Your task to perform on an android device: Search for Italian restaurants on Maps Image 0: 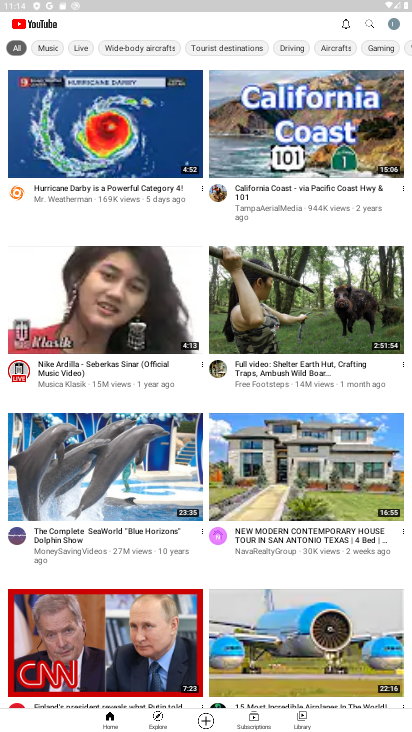
Step 0: press home button
Your task to perform on an android device: Search for Italian restaurants on Maps Image 1: 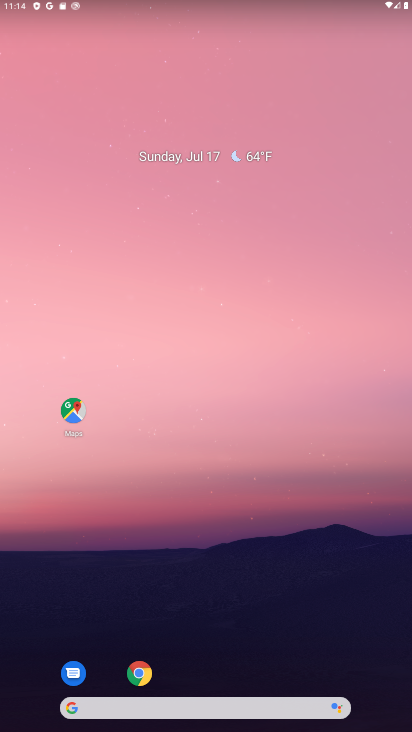
Step 1: drag from (212, 668) to (195, 95)
Your task to perform on an android device: Search for Italian restaurants on Maps Image 2: 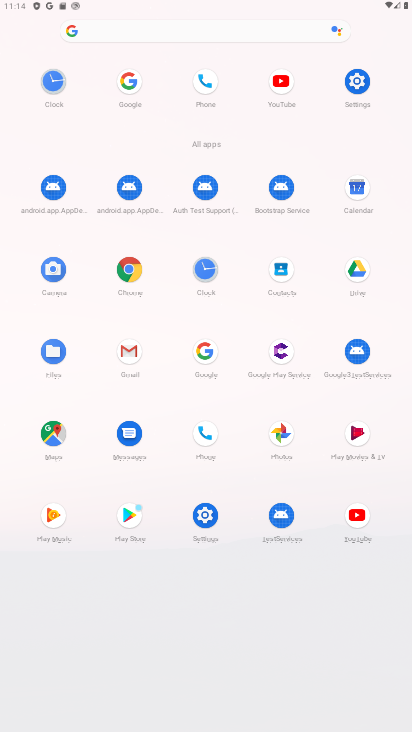
Step 2: click (52, 436)
Your task to perform on an android device: Search for Italian restaurants on Maps Image 3: 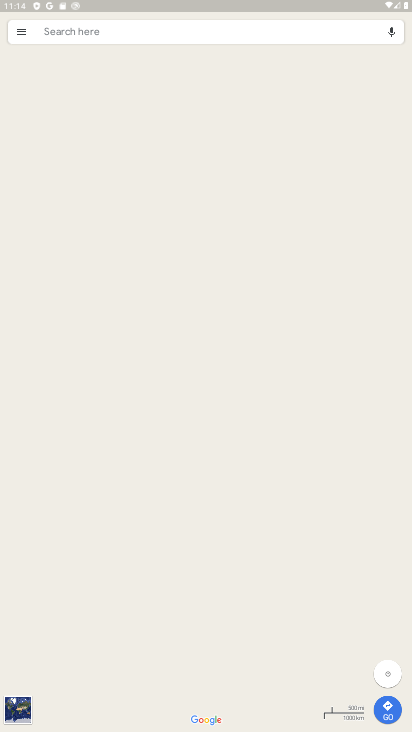
Step 3: click (184, 34)
Your task to perform on an android device: Search for Italian restaurants on Maps Image 4: 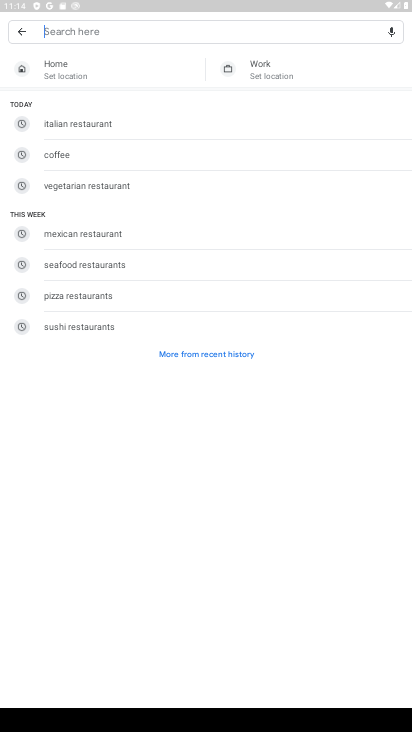
Step 4: type "italian restaurent"
Your task to perform on an android device: Search for Italian restaurants on Maps Image 5: 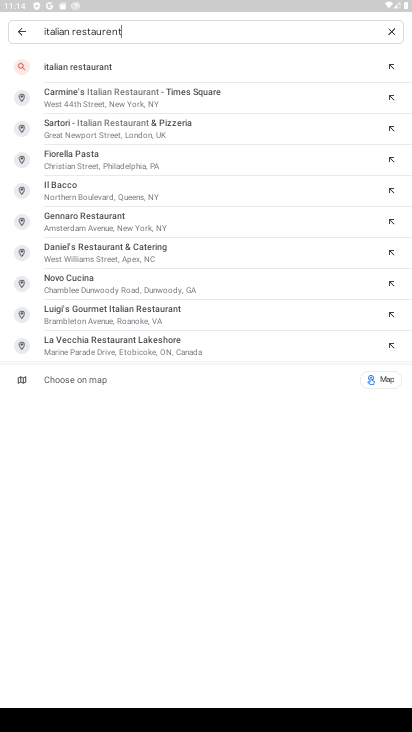
Step 5: click (113, 63)
Your task to perform on an android device: Search for Italian restaurants on Maps Image 6: 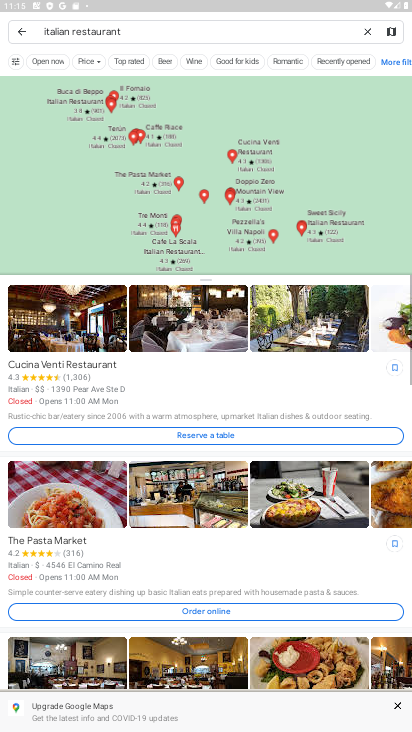
Step 6: task complete